Your task to perform on an android device: Open Youtube and go to the subscriptions tab Image 0: 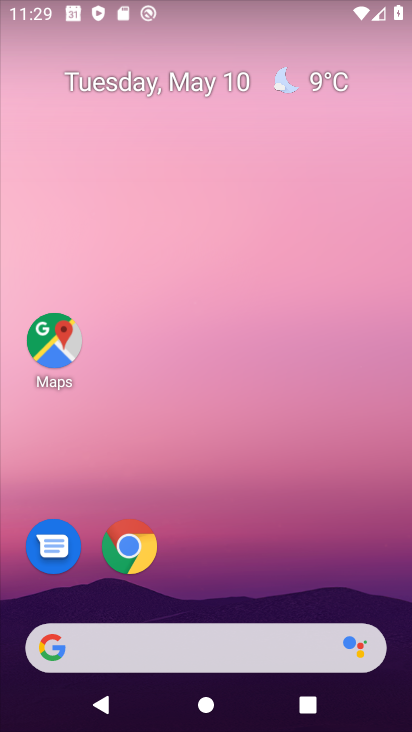
Step 0: press home button
Your task to perform on an android device: Open Youtube and go to the subscriptions tab Image 1: 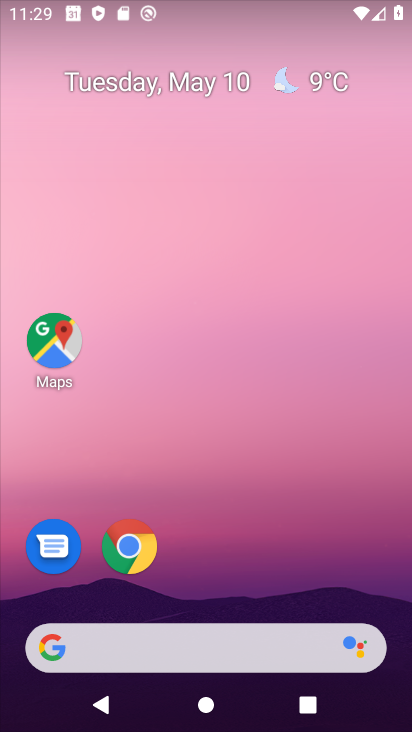
Step 1: drag from (213, 579) to (182, 232)
Your task to perform on an android device: Open Youtube and go to the subscriptions tab Image 2: 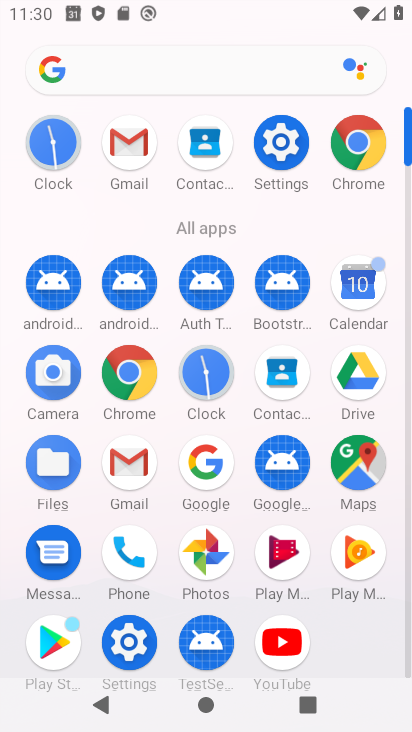
Step 2: click (281, 629)
Your task to perform on an android device: Open Youtube and go to the subscriptions tab Image 3: 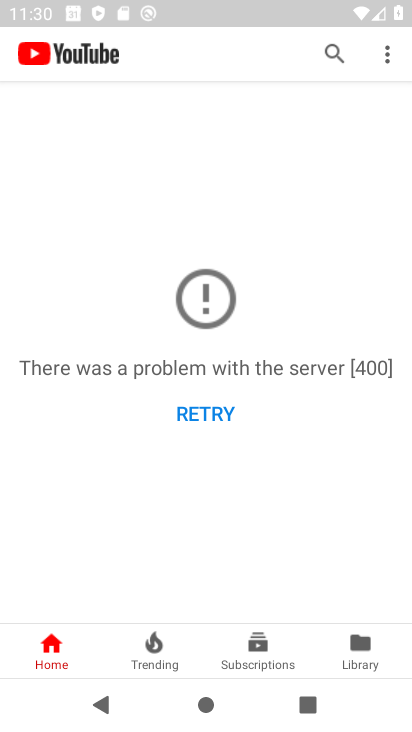
Step 3: click (262, 658)
Your task to perform on an android device: Open Youtube and go to the subscriptions tab Image 4: 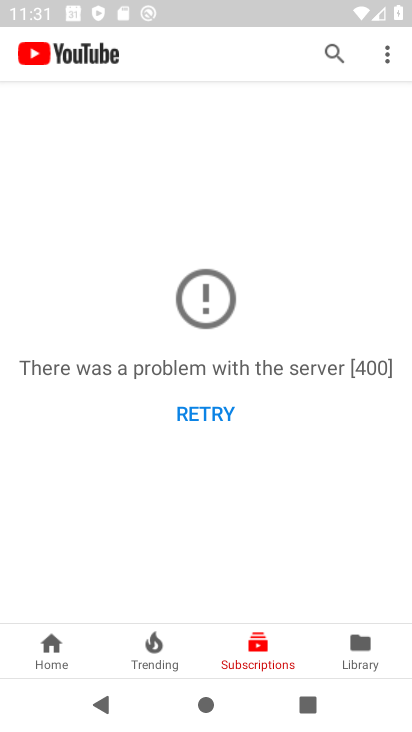
Step 4: task complete